Your task to perform on an android device: See recent photos Image 0: 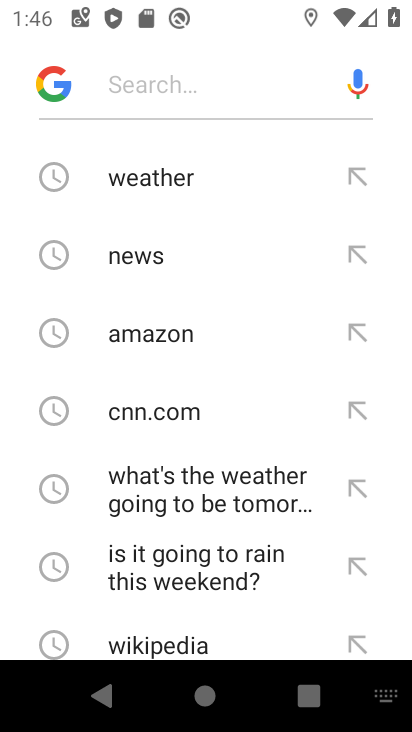
Step 0: press back button
Your task to perform on an android device: See recent photos Image 1: 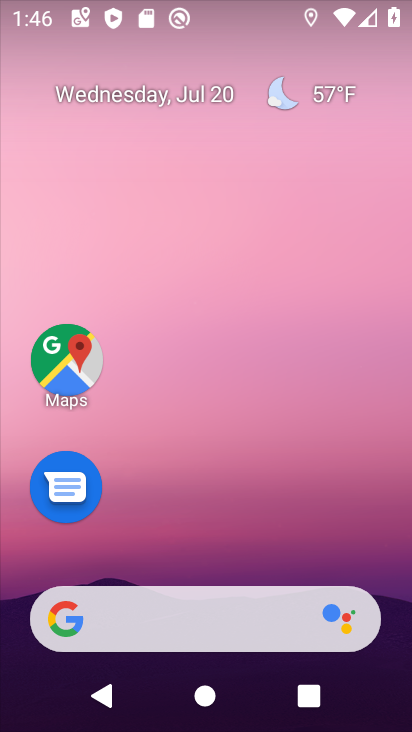
Step 1: drag from (215, 523) to (217, 4)
Your task to perform on an android device: See recent photos Image 2: 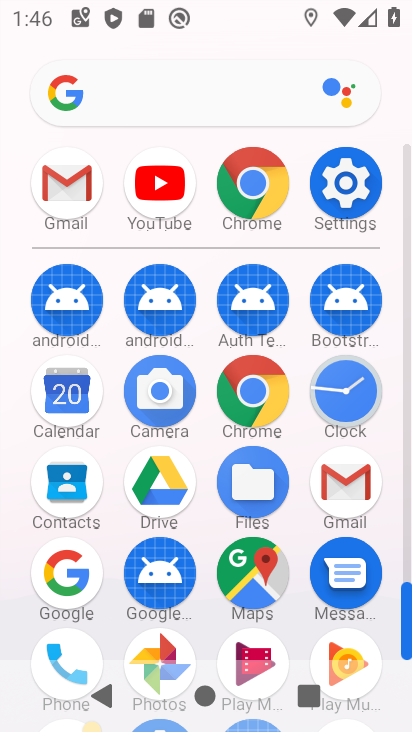
Step 2: click (148, 650)
Your task to perform on an android device: See recent photos Image 3: 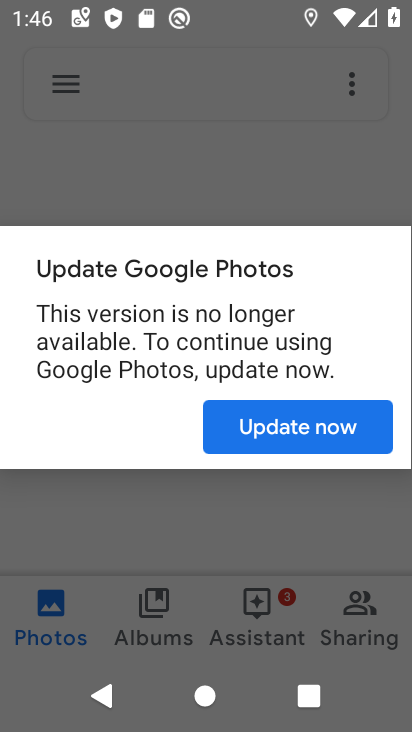
Step 3: click (265, 418)
Your task to perform on an android device: See recent photos Image 4: 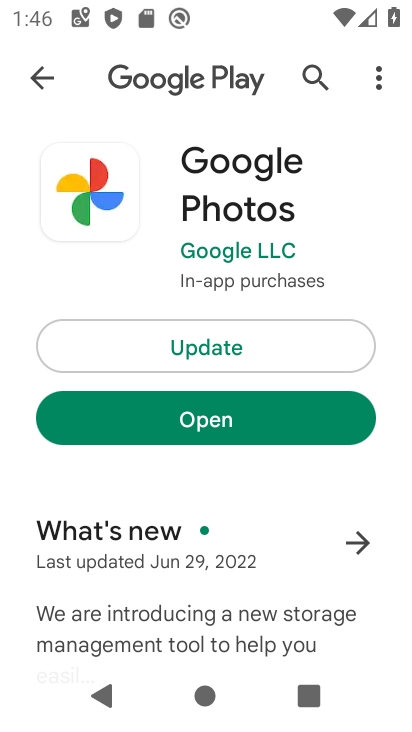
Step 4: click (184, 415)
Your task to perform on an android device: See recent photos Image 5: 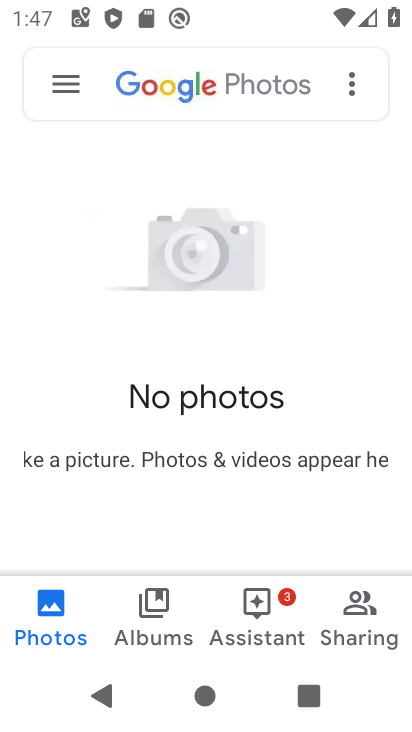
Step 5: click (38, 636)
Your task to perform on an android device: See recent photos Image 6: 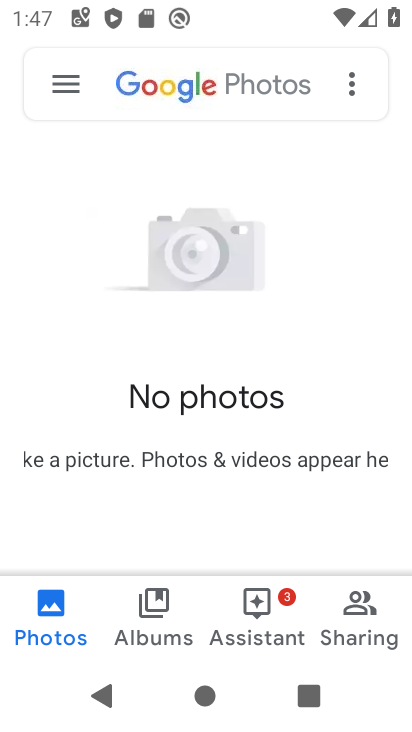
Step 6: task complete